Your task to perform on an android device: Go to display settings Image 0: 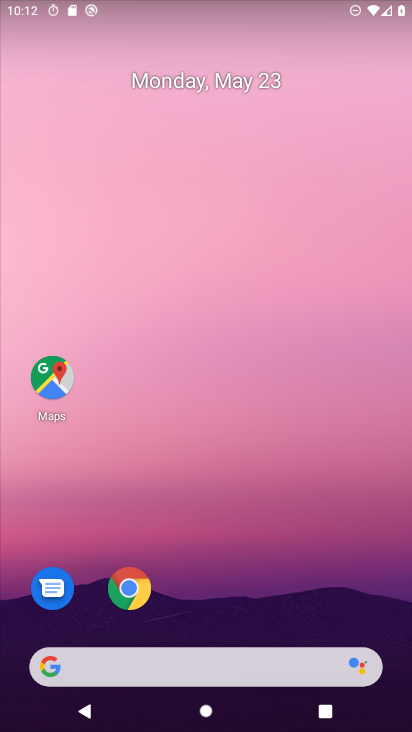
Step 0: drag from (396, 664) to (383, 209)
Your task to perform on an android device: Go to display settings Image 1: 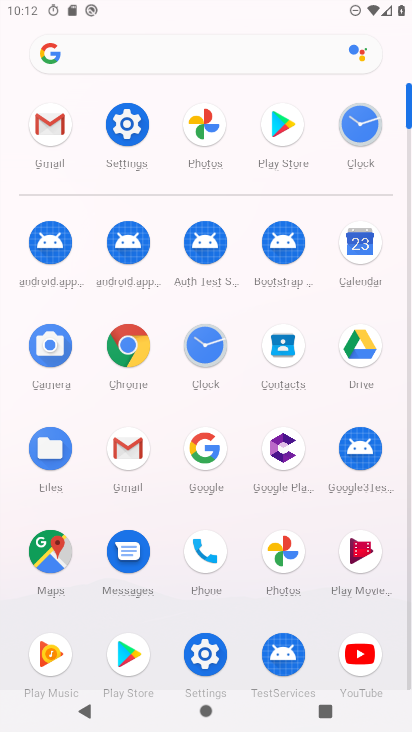
Step 1: click (121, 120)
Your task to perform on an android device: Go to display settings Image 2: 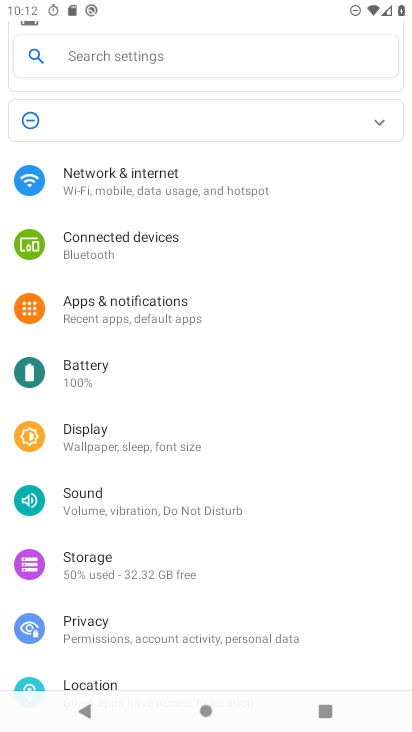
Step 2: click (61, 442)
Your task to perform on an android device: Go to display settings Image 3: 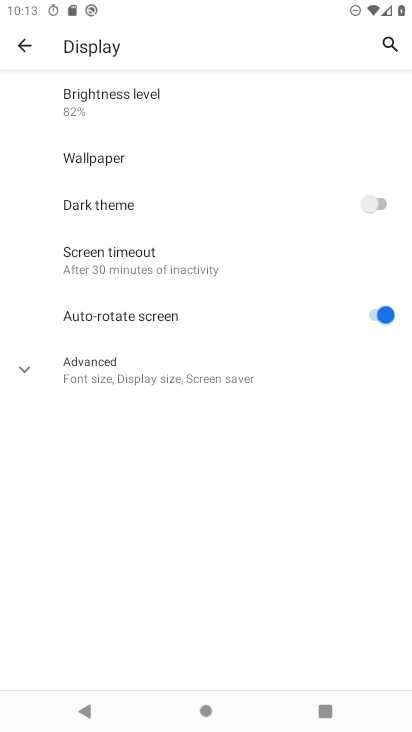
Step 3: task complete